Your task to perform on an android device: Go to ESPN.com Image 0: 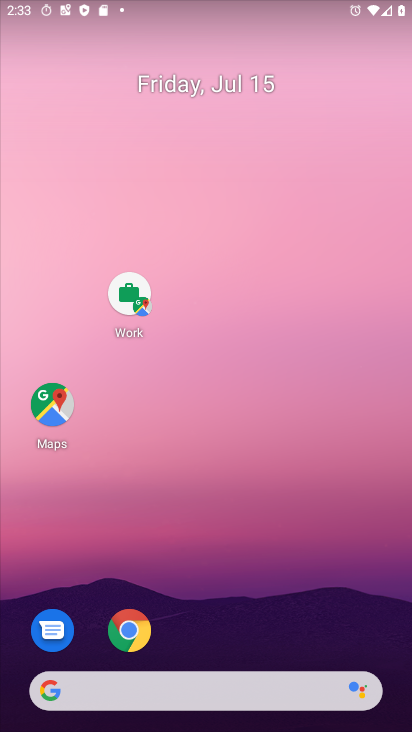
Step 0: click (130, 648)
Your task to perform on an android device: Go to ESPN.com Image 1: 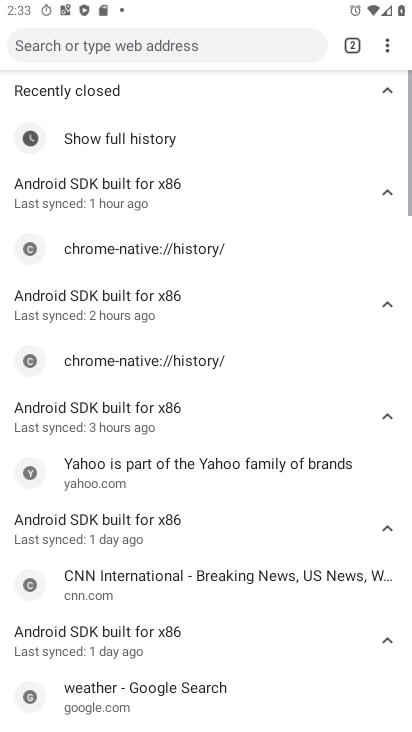
Step 1: click (348, 42)
Your task to perform on an android device: Go to ESPN.com Image 2: 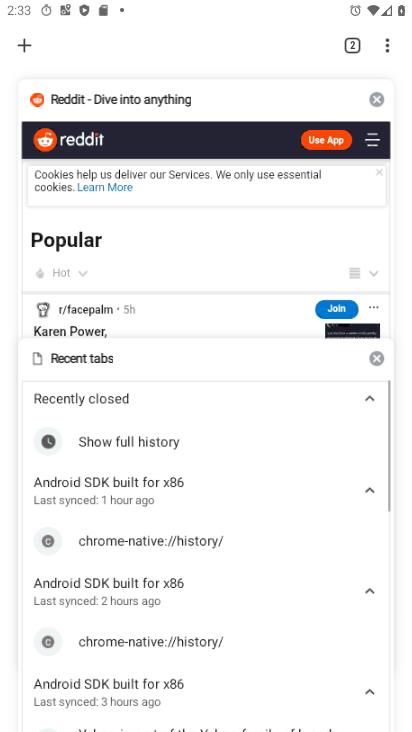
Step 2: click (23, 45)
Your task to perform on an android device: Go to ESPN.com Image 3: 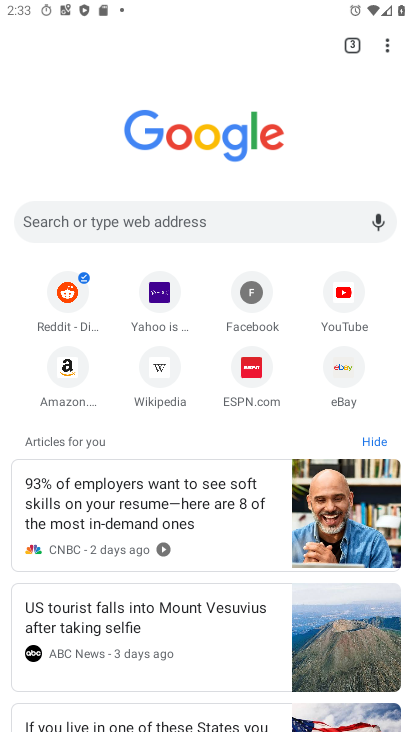
Step 3: click (240, 387)
Your task to perform on an android device: Go to ESPN.com Image 4: 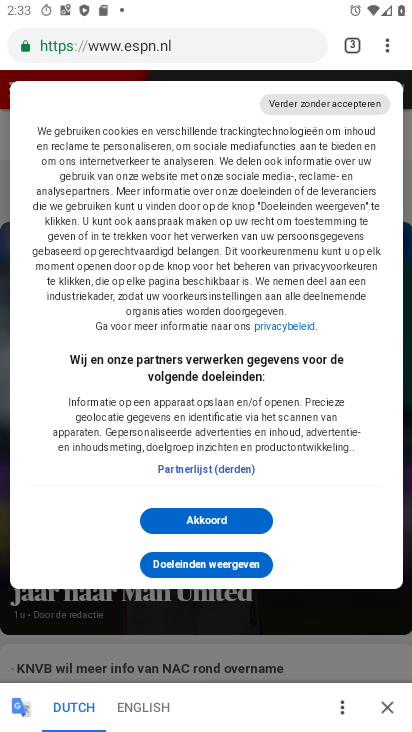
Step 4: task complete